Your task to perform on an android device: refresh tabs in the chrome app Image 0: 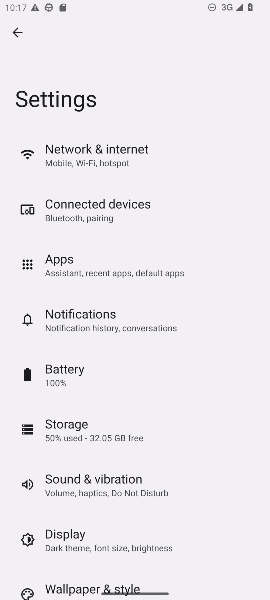
Step 0: press home button
Your task to perform on an android device: refresh tabs in the chrome app Image 1: 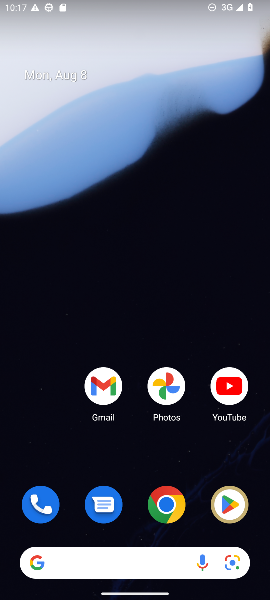
Step 1: click (172, 512)
Your task to perform on an android device: refresh tabs in the chrome app Image 2: 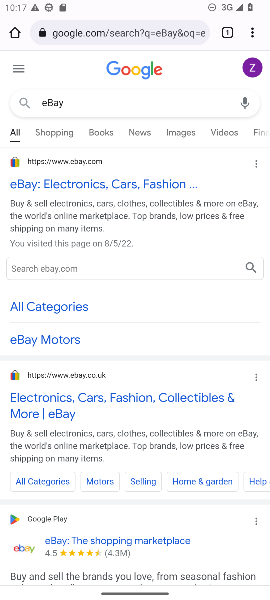
Step 2: click (251, 24)
Your task to perform on an android device: refresh tabs in the chrome app Image 3: 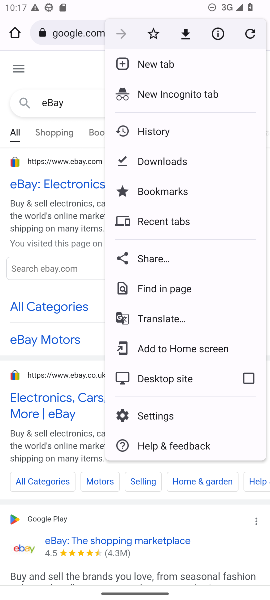
Step 3: click (245, 30)
Your task to perform on an android device: refresh tabs in the chrome app Image 4: 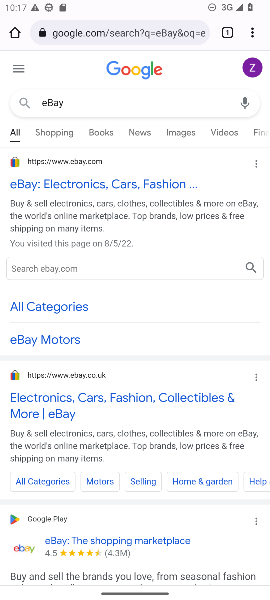
Step 4: task complete